Your task to perform on an android device: turn off data saver in the chrome app Image 0: 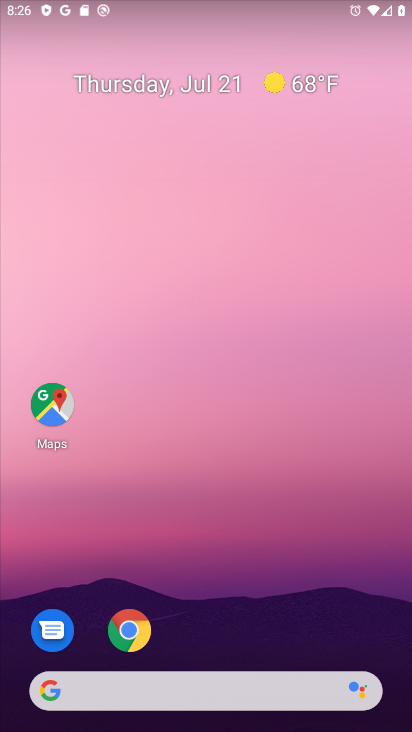
Step 0: drag from (224, 109) to (231, 76)
Your task to perform on an android device: turn off data saver in the chrome app Image 1: 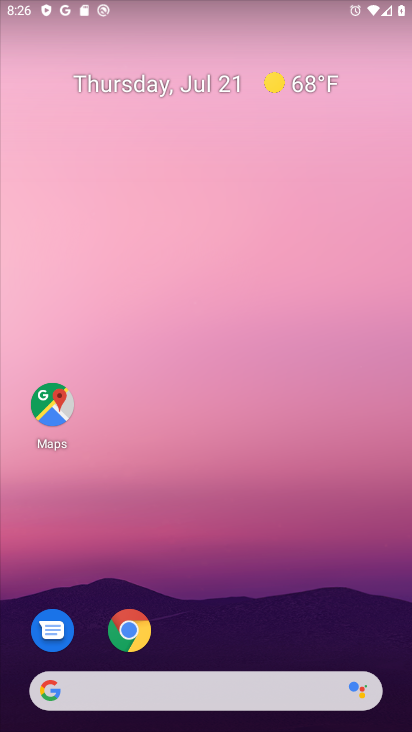
Step 1: drag from (229, 442) to (142, 9)
Your task to perform on an android device: turn off data saver in the chrome app Image 2: 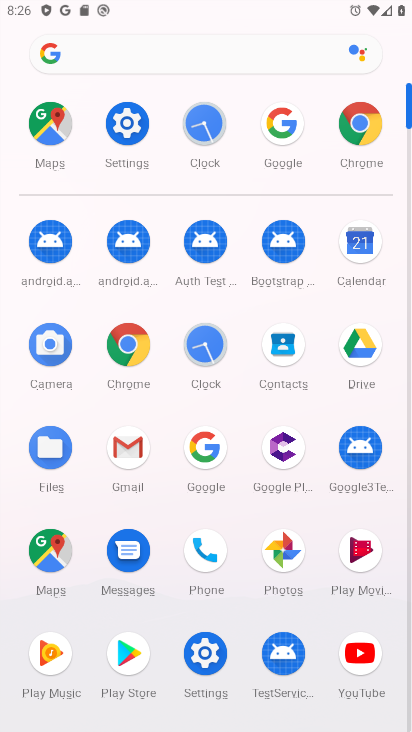
Step 2: click (353, 120)
Your task to perform on an android device: turn off data saver in the chrome app Image 3: 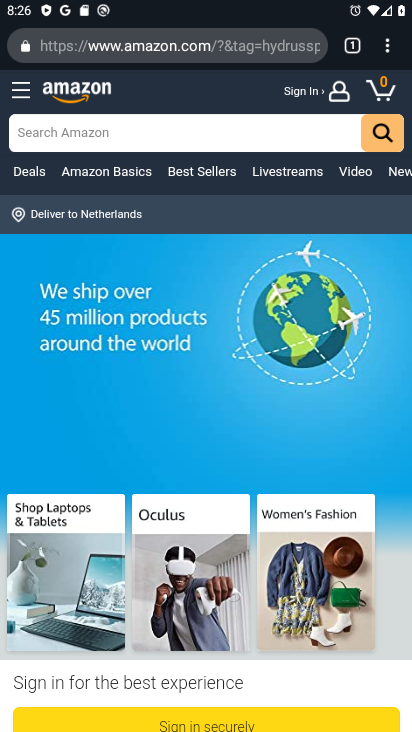
Step 3: drag from (397, 46) to (240, 549)
Your task to perform on an android device: turn off data saver in the chrome app Image 4: 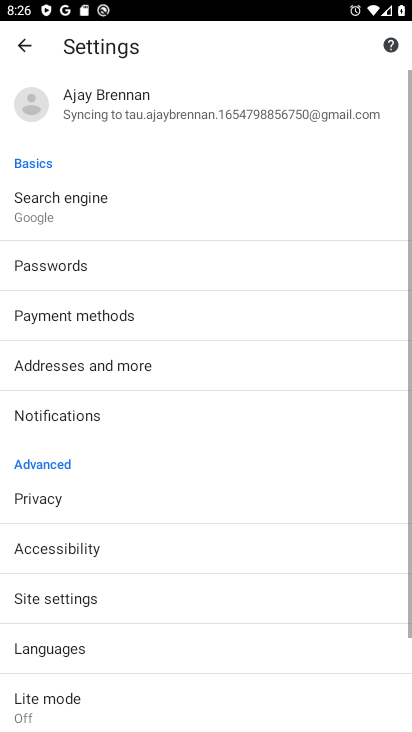
Step 4: drag from (138, 577) to (148, 155)
Your task to perform on an android device: turn off data saver in the chrome app Image 5: 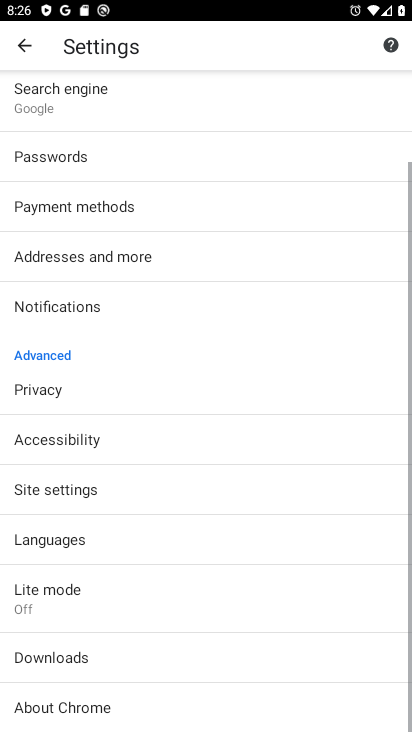
Step 5: click (89, 588)
Your task to perform on an android device: turn off data saver in the chrome app Image 6: 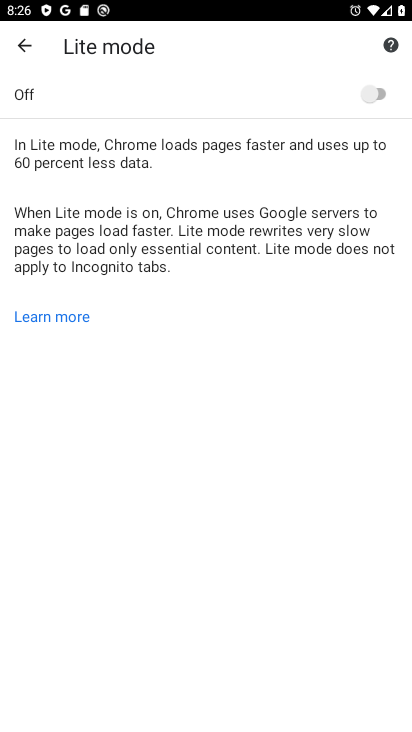
Step 6: task complete